Your task to perform on an android device: toggle pop-ups in chrome Image 0: 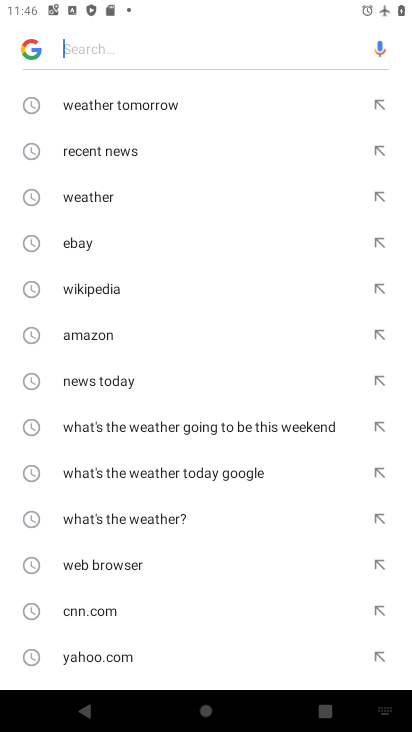
Step 0: press home button
Your task to perform on an android device: toggle pop-ups in chrome Image 1: 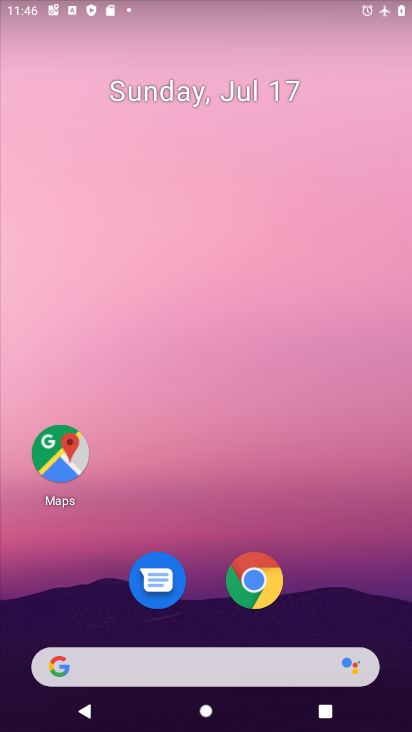
Step 1: drag from (220, 682) to (254, 245)
Your task to perform on an android device: toggle pop-ups in chrome Image 2: 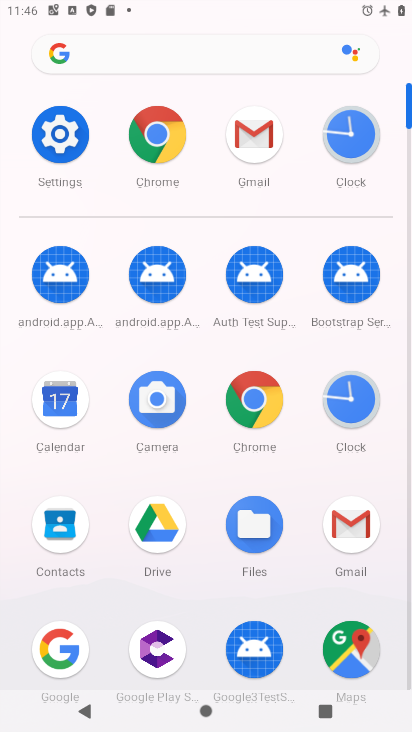
Step 2: click (245, 437)
Your task to perform on an android device: toggle pop-ups in chrome Image 3: 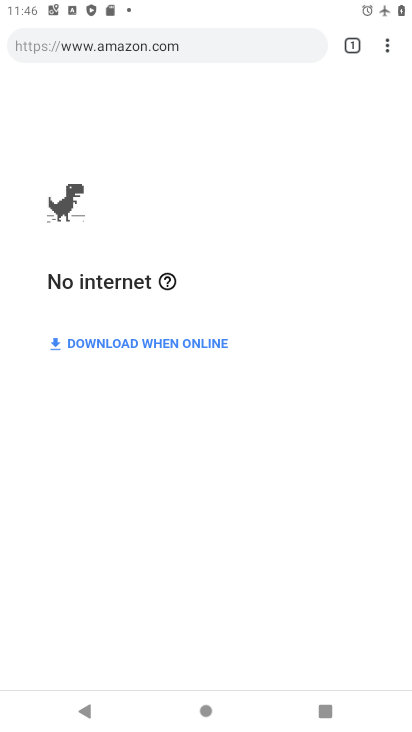
Step 3: click (392, 55)
Your task to perform on an android device: toggle pop-ups in chrome Image 4: 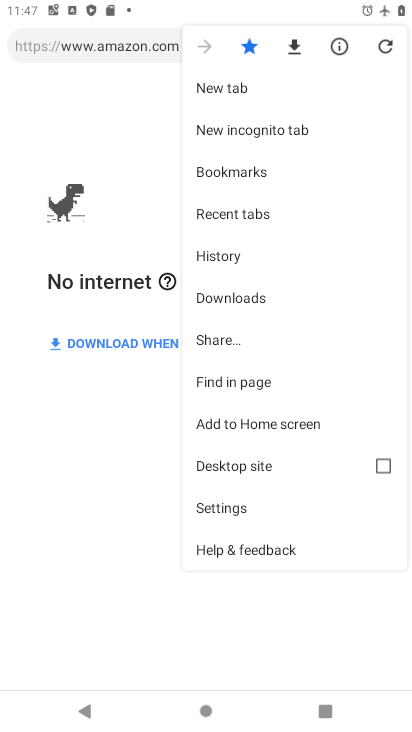
Step 4: click (228, 515)
Your task to perform on an android device: toggle pop-ups in chrome Image 5: 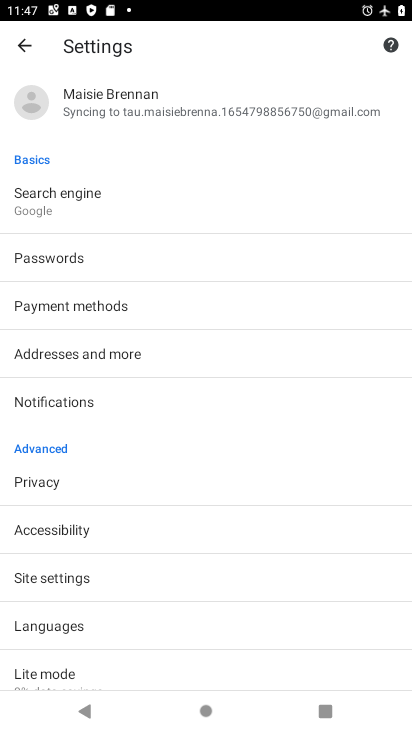
Step 5: click (49, 581)
Your task to perform on an android device: toggle pop-ups in chrome Image 6: 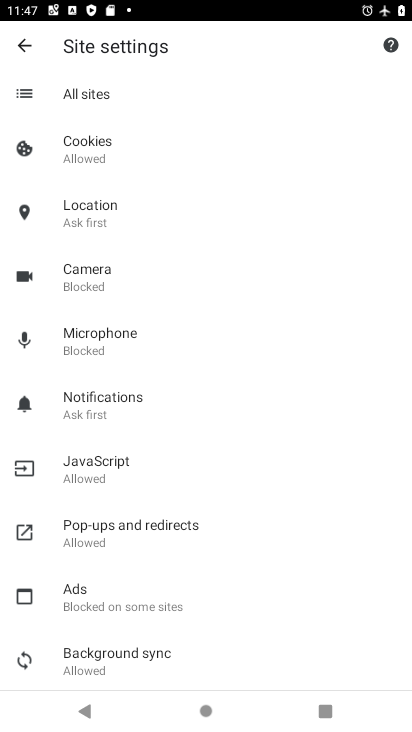
Step 6: click (136, 536)
Your task to perform on an android device: toggle pop-ups in chrome Image 7: 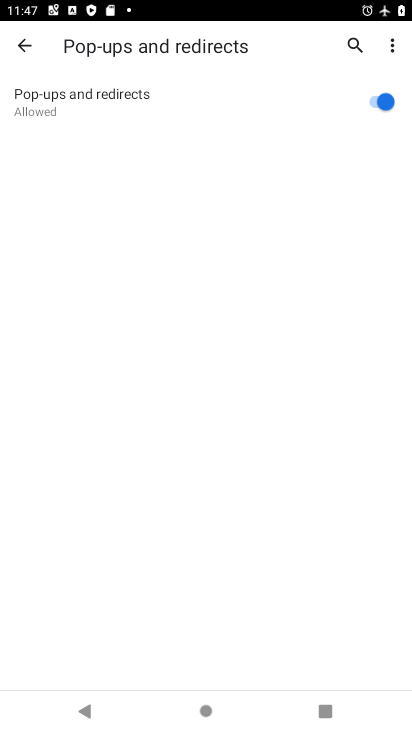
Step 7: click (369, 94)
Your task to perform on an android device: toggle pop-ups in chrome Image 8: 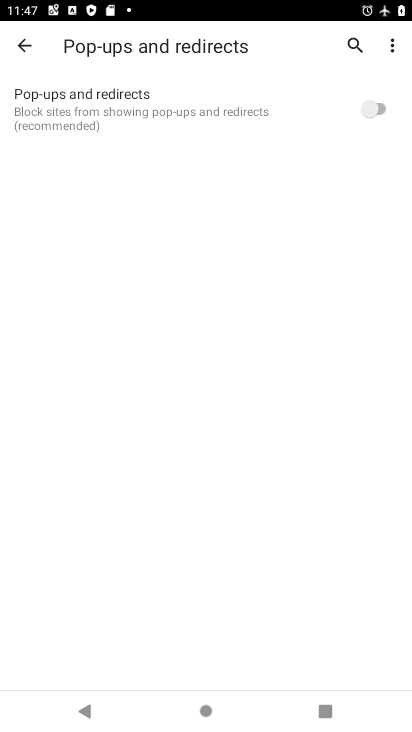
Step 8: task complete